Your task to perform on an android device: check the backup settings in the google photos Image 0: 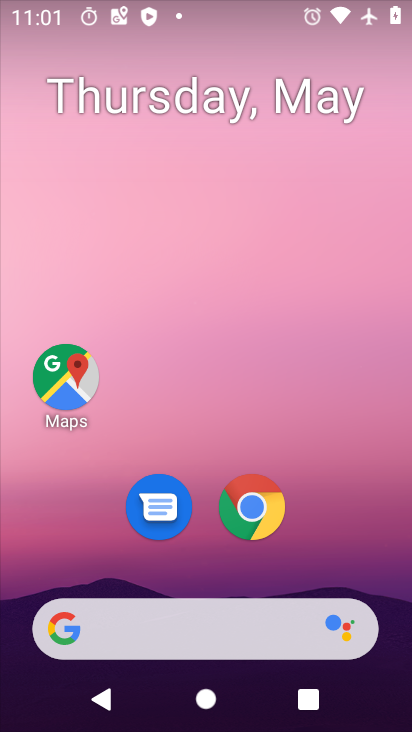
Step 0: drag from (314, 490) to (246, 49)
Your task to perform on an android device: check the backup settings in the google photos Image 1: 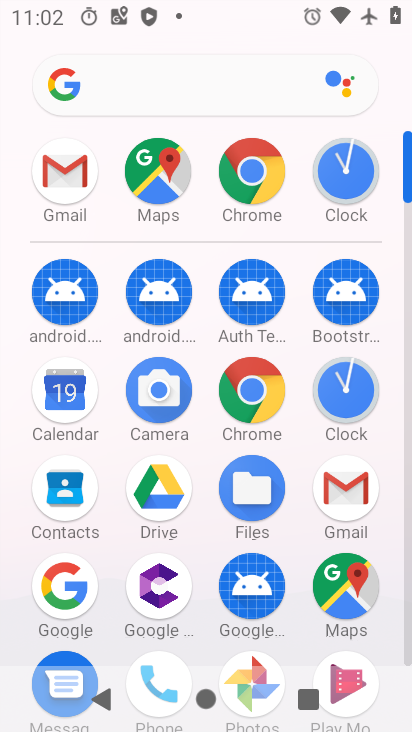
Step 1: drag from (4, 580) to (4, 247)
Your task to perform on an android device: check the backup settings in the google photos Image 2: 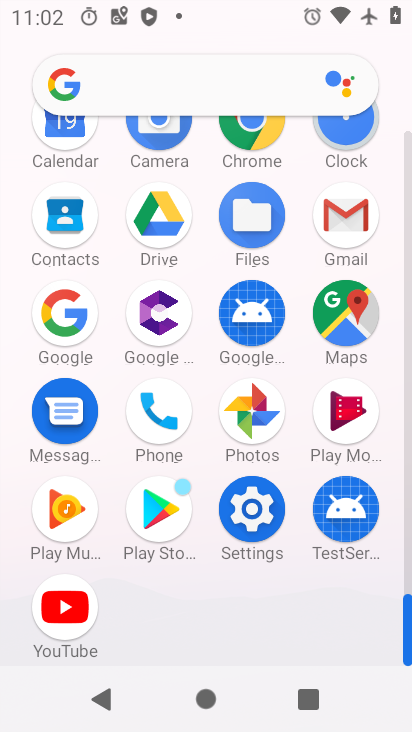
Step 2: click (249, 406)
Your task to perform on an android device: check the backup settings in the google photos Image 3: 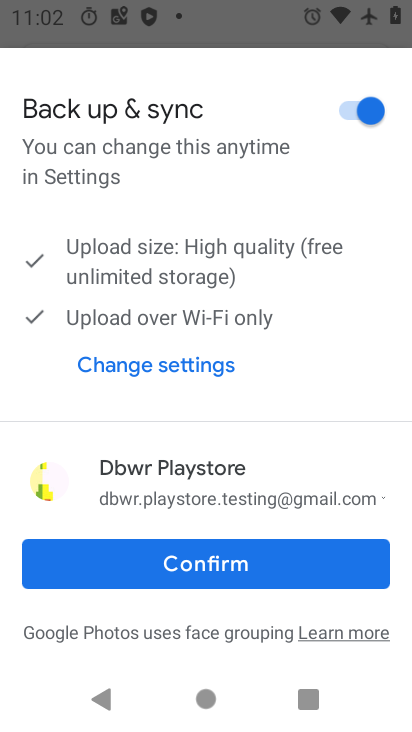
Step 3: click (195, 549)
Your task to perform on an android device: check the backup settings in the google photos Image 4: 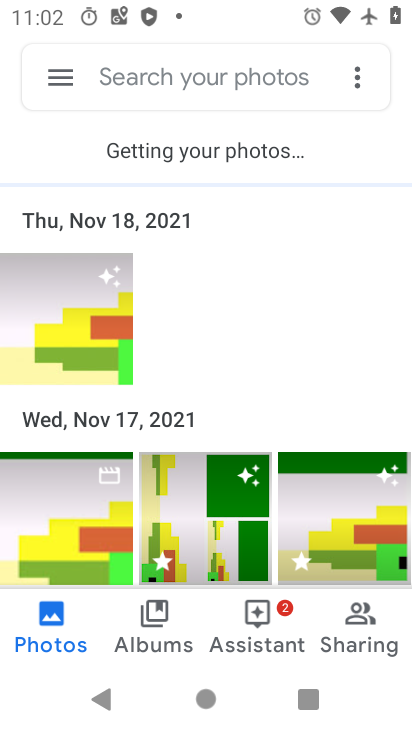
Step 4: click (54, 80)
Your task to perform on an android device: check the backup settings in the google photos Image 5: 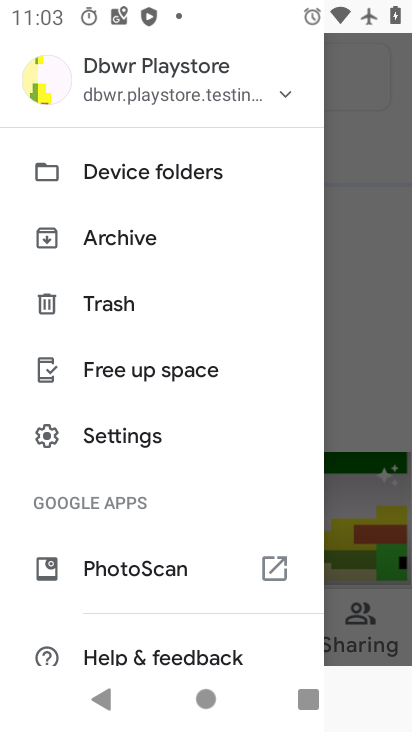
Step 5: click (116, 436)
Your task to perform on an android device: check the backup settings in the google photos Image 6: 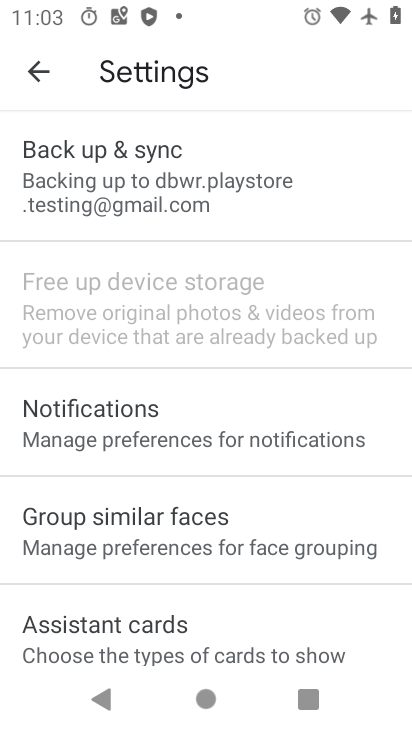
Step 6: click (210, 175)
Your task to perform on an android device: check the backup settings in the google photos Image 7: 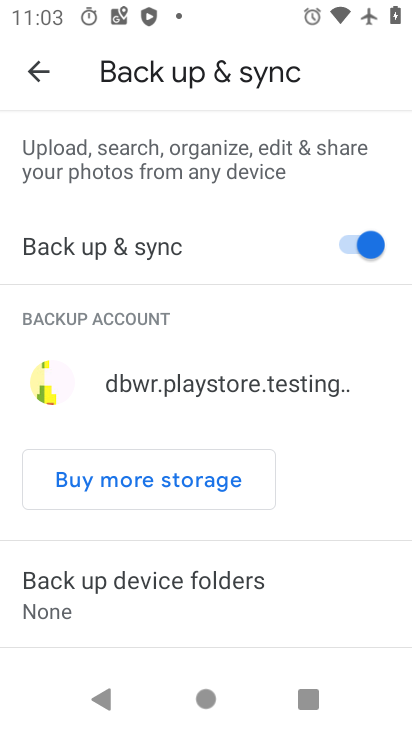
Step 7: drag from (207, 606) to (198, 145)
Your task to perform on an android device: check the backup settings in the google photos Image 8: 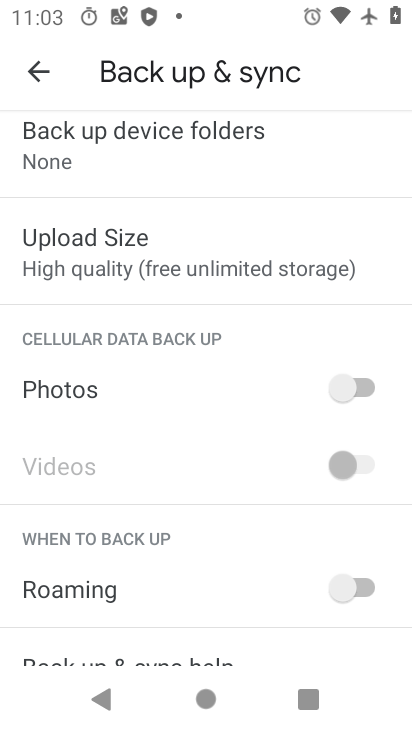
Step 8: drag from (178, 185) to (179, 546)
Your task to perform on an android device: check the backup settings in the google photos Image 9: 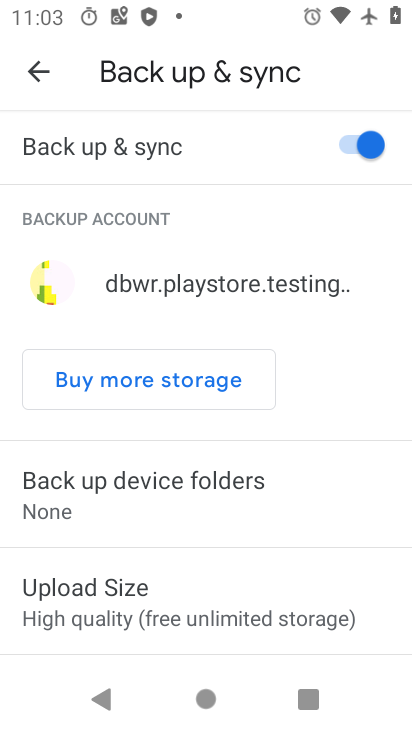
Step 9: click (180, 477)
Your task to perform on an android device: check the backup settings in the google photos Image 10: 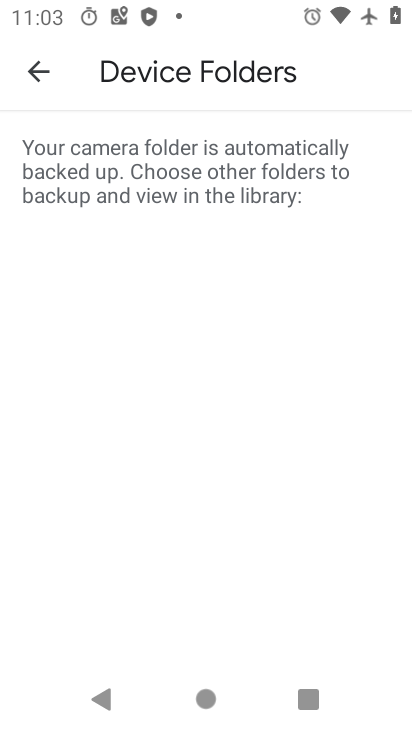
Step 10: click (44, 82)
Your task to perform on an android device: check the backup settings in the google photos Image 11: 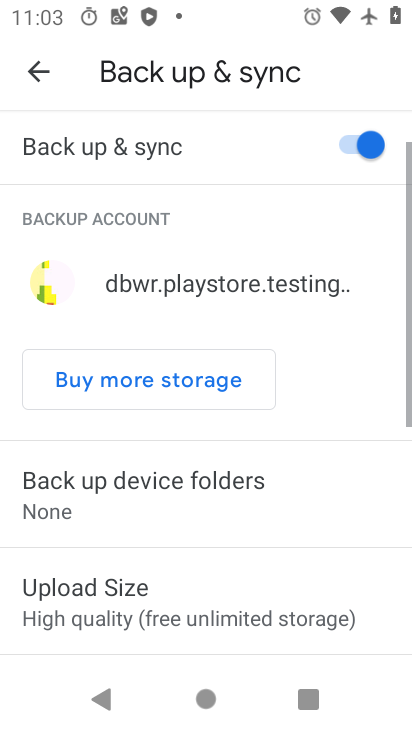
Step 11: click (129, 151)
Your task to perform on an android device: check the backup settings in the google photos Image 12: 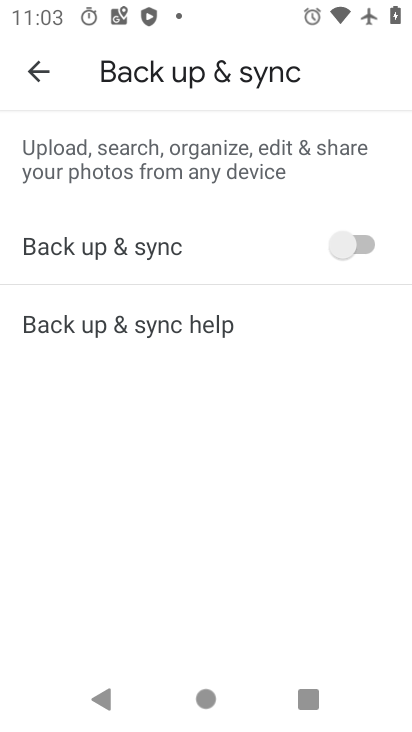
Step 12: click (49, 64)
Your task to perform on an android device: check the backup settings in the google photos Image 13: 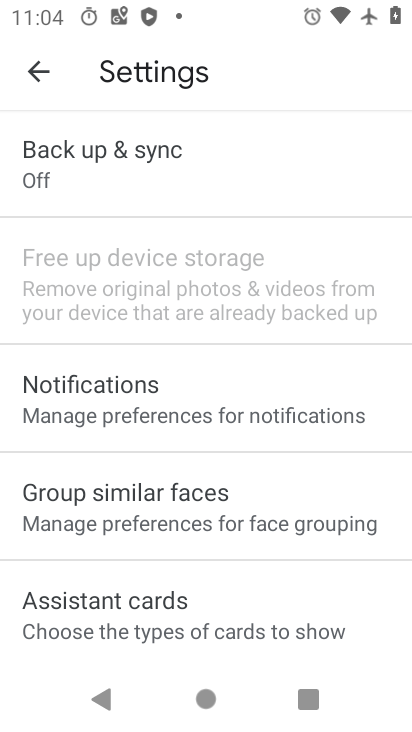
Step 13: drag from (205, 524) to (226, 197)
Your task to perform on an android device: check the backup settings in the google photos Image 14: 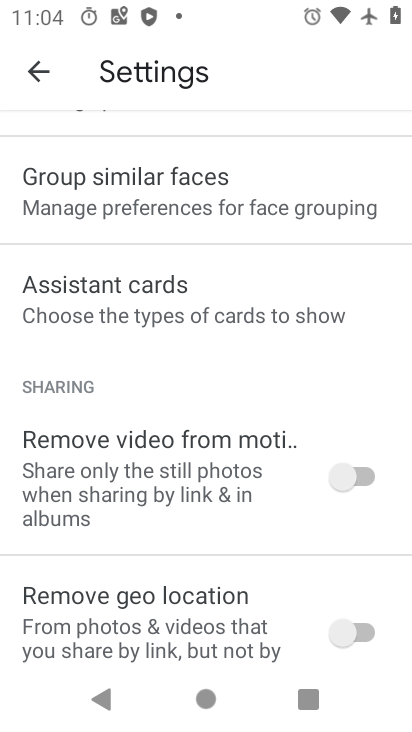
Step 14: drag from (226, 574) to (219, 240)
Your task to perform on an android device: check the backup settings in the google photos Image 15: 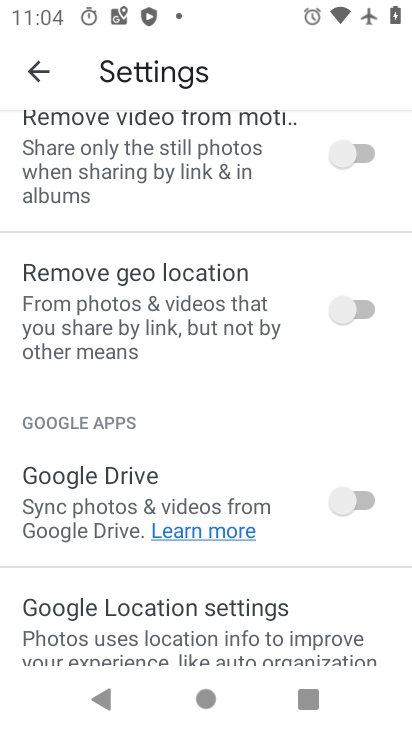
Step 15: drag from (69, 586) to (86, 216)
Your task to perform on an android device: check the backup settings in the google photos Image 16: 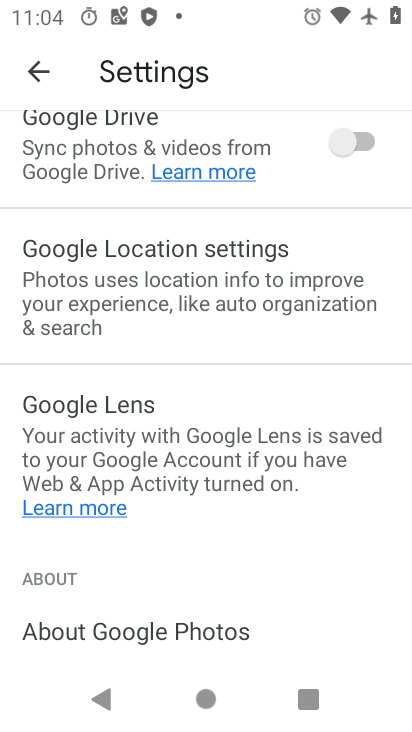
Step 16: drag from (37, 245) to (37, 681)
Your task to perform on an android device: check the backup settings in the google photos Image 17: 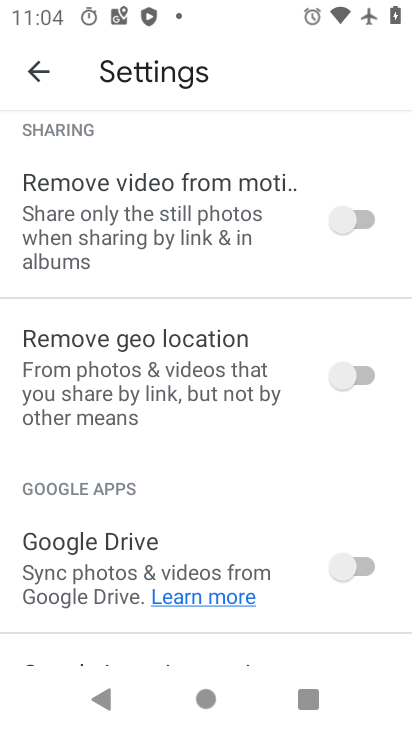
Step 17: drag from (92, 209) to (50, 541)
Your task to perform on an android device: check the backup settings in the google photos Image 18: 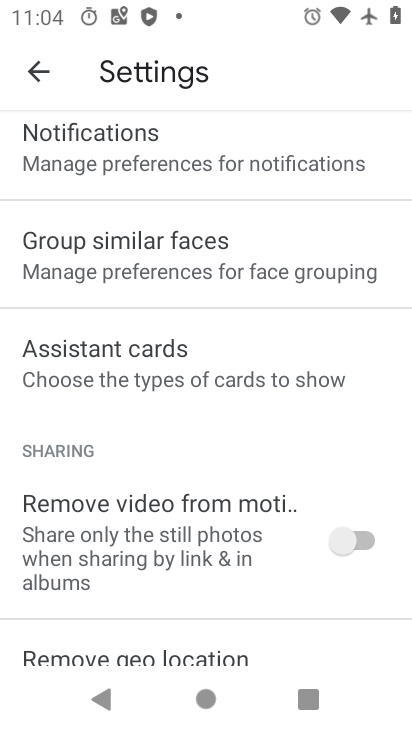
Step 18: drag from (159, 270) to (114, 596)
Your task to perform on an android device: check the backup settings in the google photos Image 19: 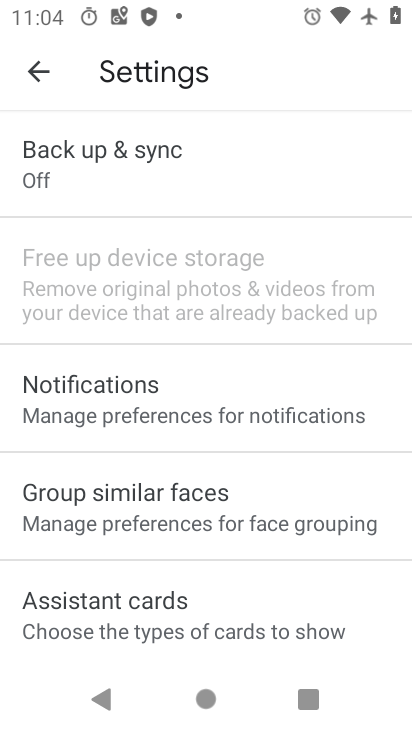
Step 19: click (159, 152)
Your task to perform on an android device: check the backup settings in the google photos Image 20: 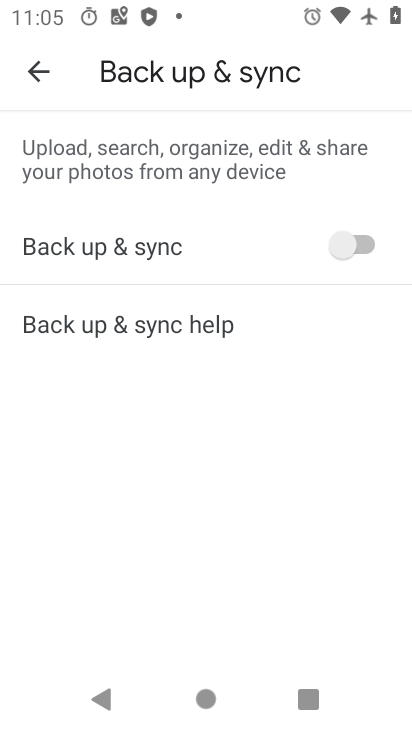
Step 20: task complete